Your task to perform on an android device: turn off location history Image 0: 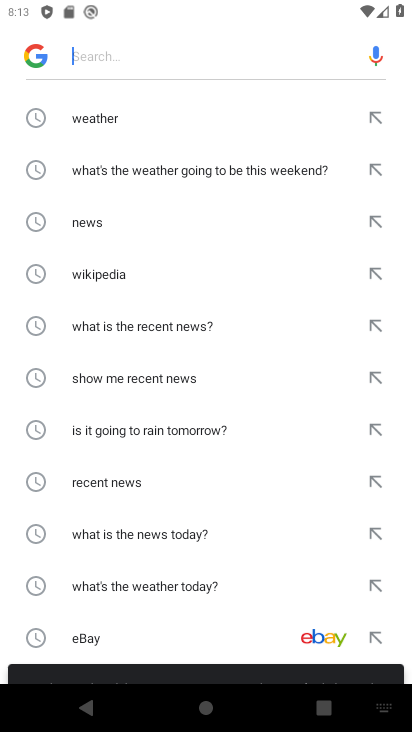
Step 0: press back button
Your task to perform on an android device: turn off location history Image 1: 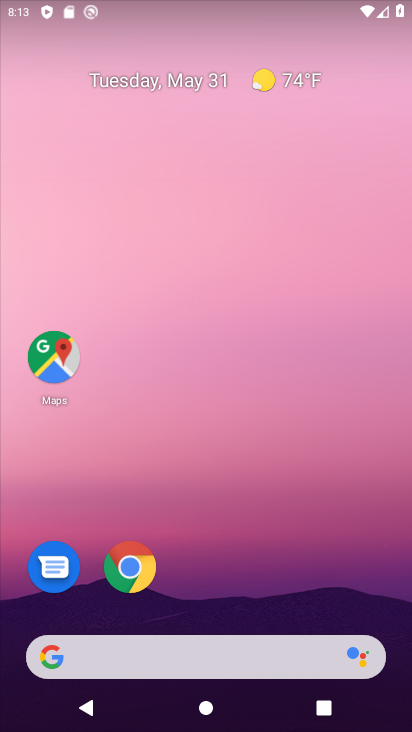
Step 1: drag from (240, 695) to (216, 156)
Your task to perform on an android device: turn off location history Image 2: 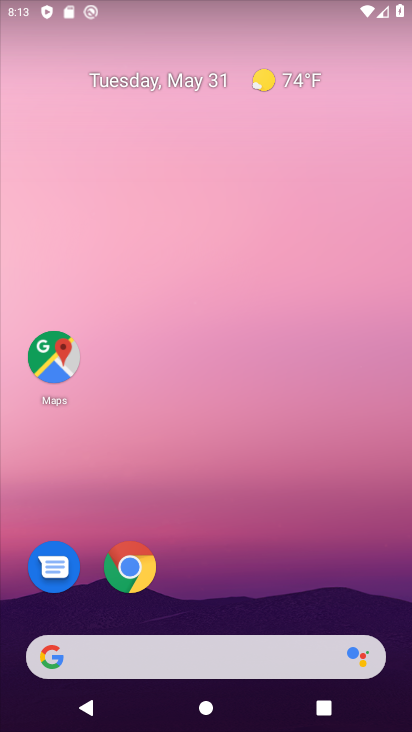
Step 2: drag from (283, 596) to (276, 252)
Your task to perform on an android device: turn off location history Image 3: 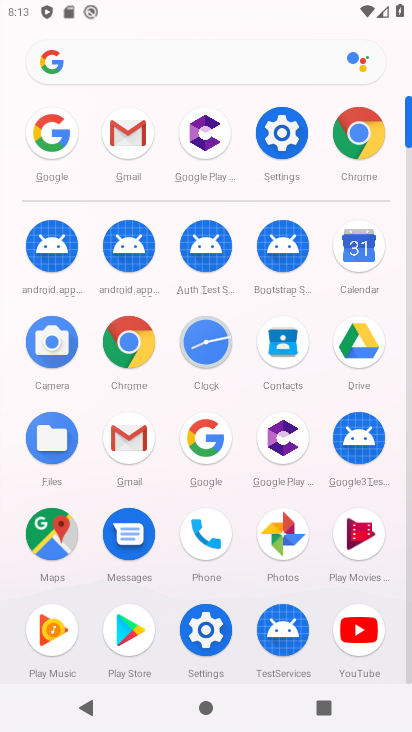
Step 3: click (276, 135)
Your task to perform on an android device: turn off location history Image 4: 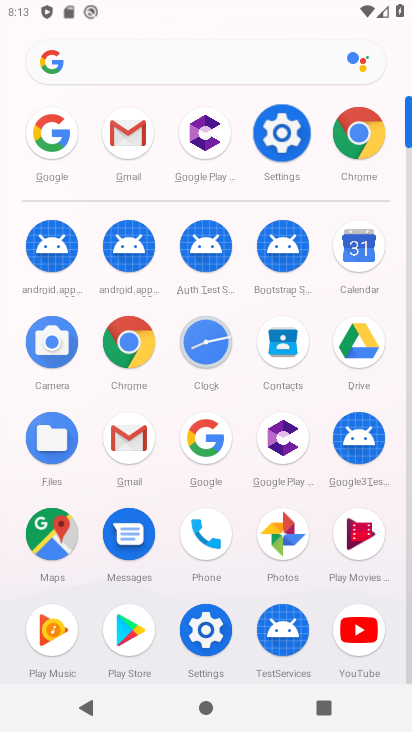
Step 4: click (276, 136)
Your task to perform on an android device: turn off location history Image 5: 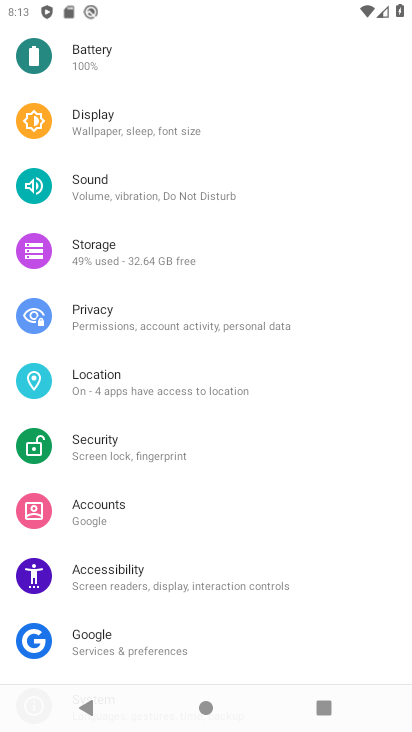
Step 5: click (100, 383)
Your task to perform on an android device: turn off location history Image 6: 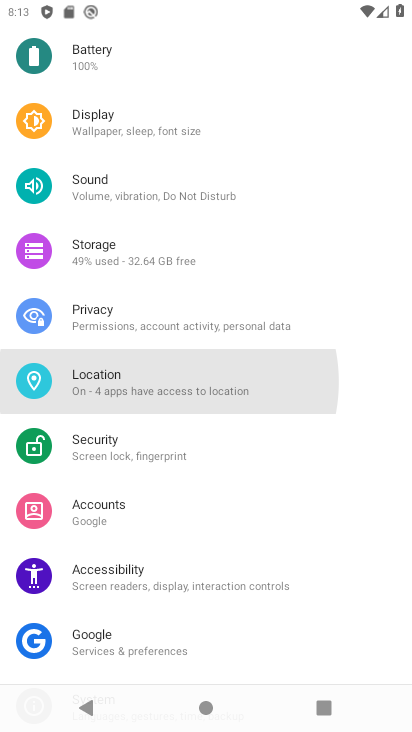
Step 6: click (101, 383)
Your task to perform on an android device: turn off location history Image 7: 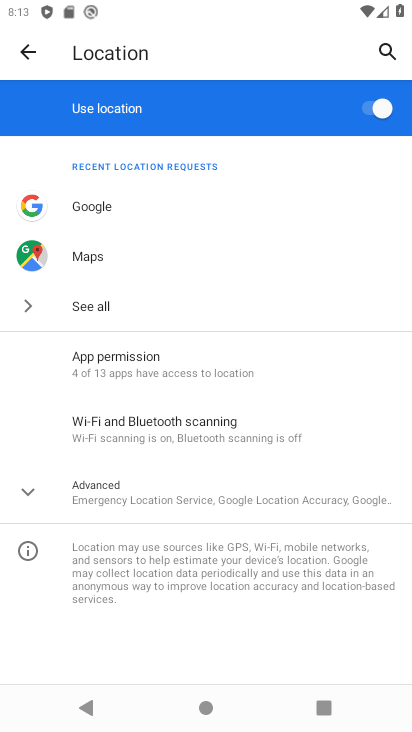
Step 7: click (102, 495)
Your task to perform on an android device: turn off location history Image 8: 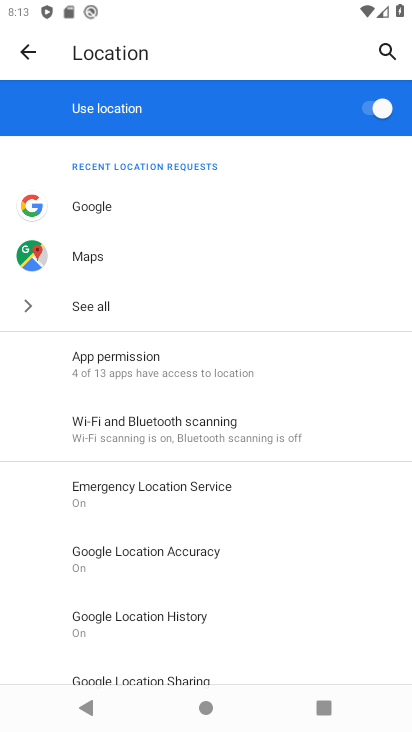
Step 8: click (138, 618)
Your task to perform on an android device: turn off location history Image 9: 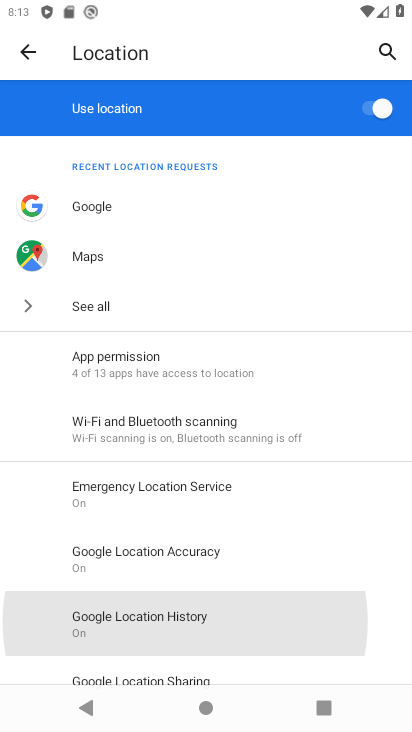
Step 9: click (138, 618)
Your task to perform on an android device: turn off location history Image 10: 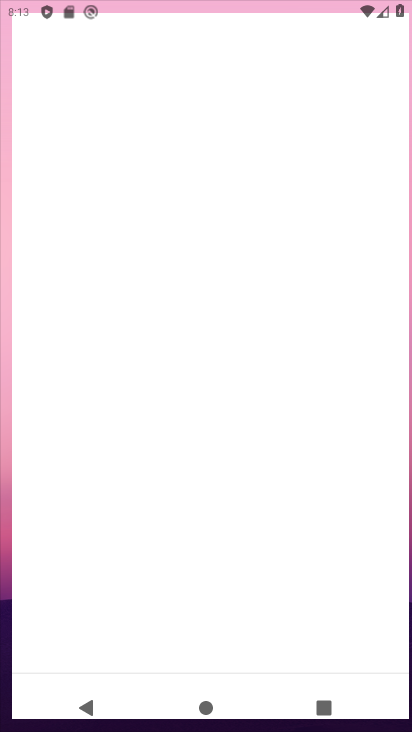
Step 10: click (139, 618)
Your task to perform on an android device: turn off location history Image 11: 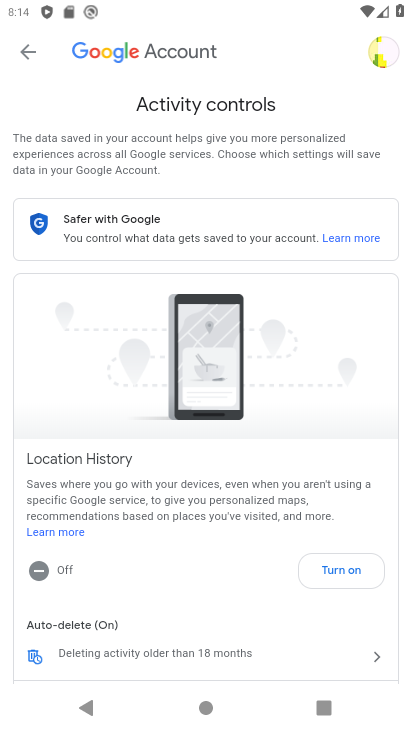
Step 11: click (346, 564)
Your task to perform on an android device: turn off location history Image 12: 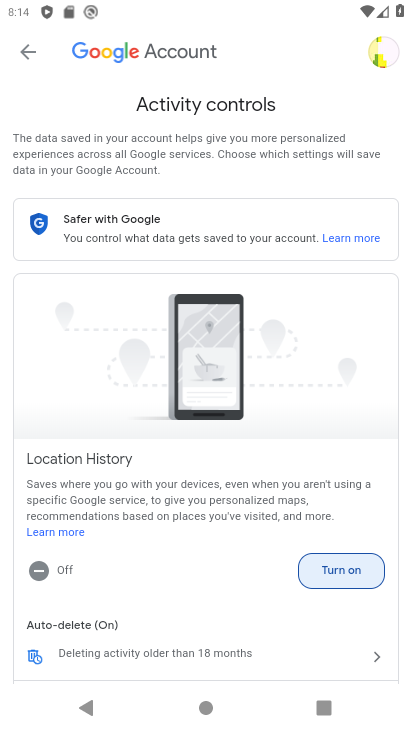
Step 12: click (43, 577)
Your task to perform on an android device: turn off location history Image 13: 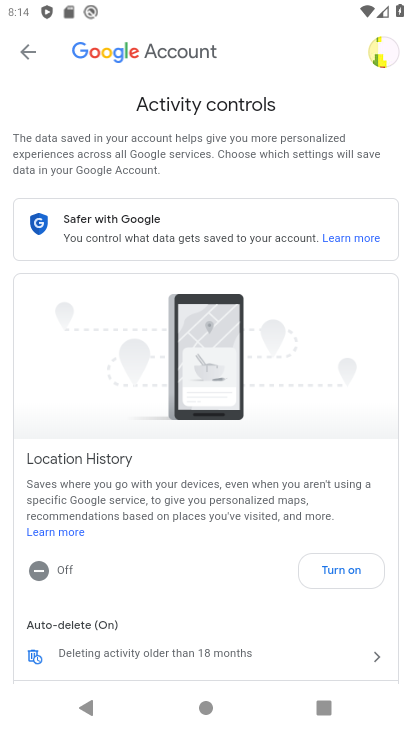
Step 13: click (42, 576)
Your task to perform on an android device: turn off location history Image 14: 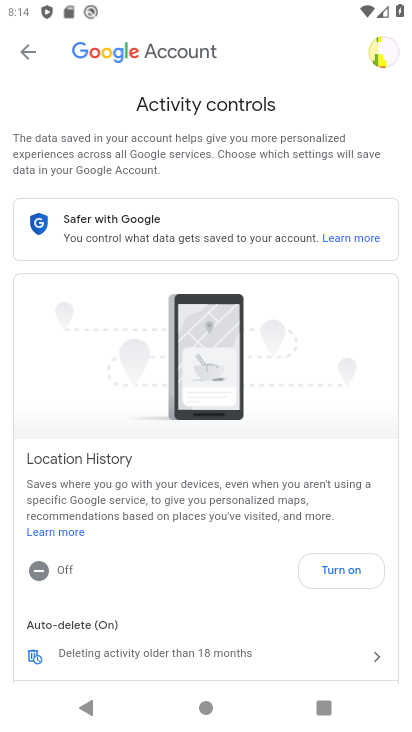
Step 14: click (355, 576)
Your task to perform on an android device: turn off location history Image 15: 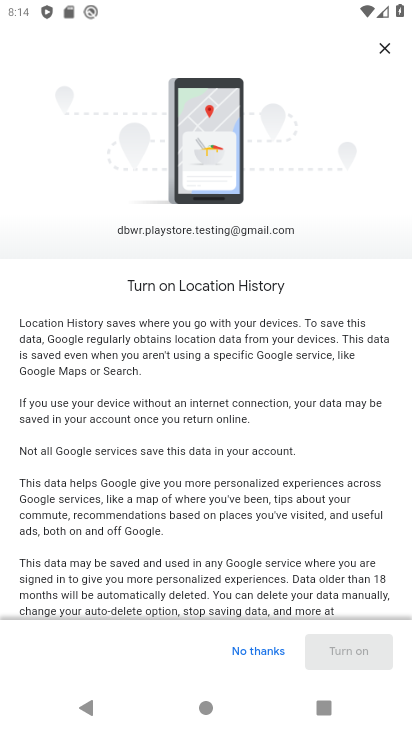
Step 15: click (269, 650)
Your task to perform on an android device: turn off location history Image 16: 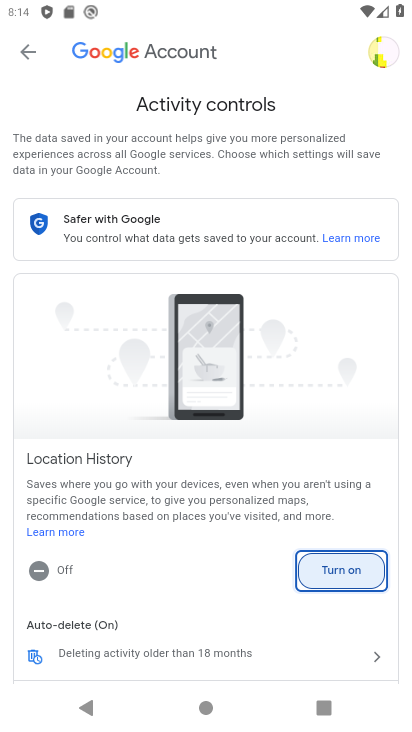
Step 16: click (339, 574)
Your task to perform on an android device: turn off location history Image 17: 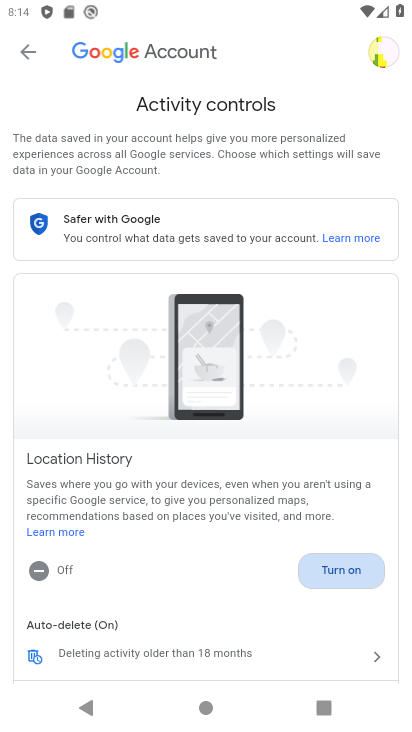
Step 17: click (339, 574)
Your task to perform on an android device: turn off location history Image 18: 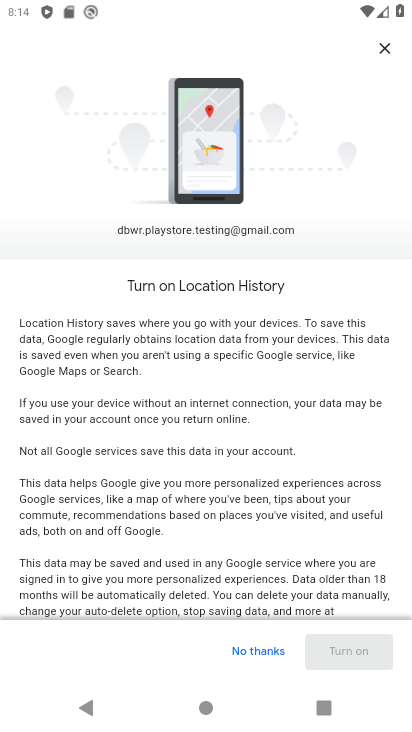
Step 18: click (337, 646)
Your task to perform on an android device: turn off location history Image 19: 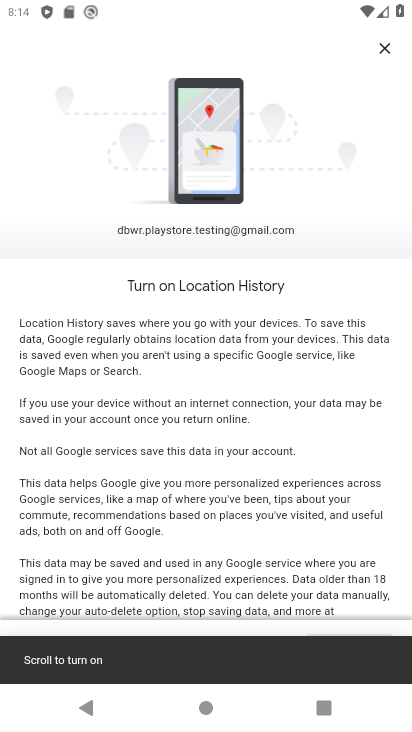
Step 19: drag from (288, 539) to (279, 129)
Your task to perform on an android device: turn off location history Image 20: 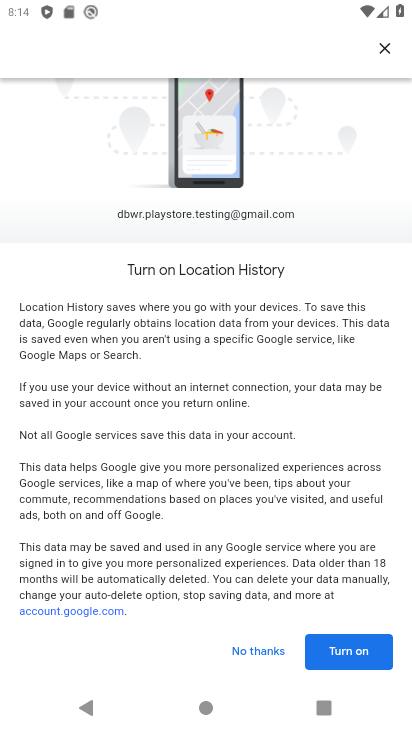
Step 20: click (267, 653)
Your task to perform on an android device: turn off location history Image 21: 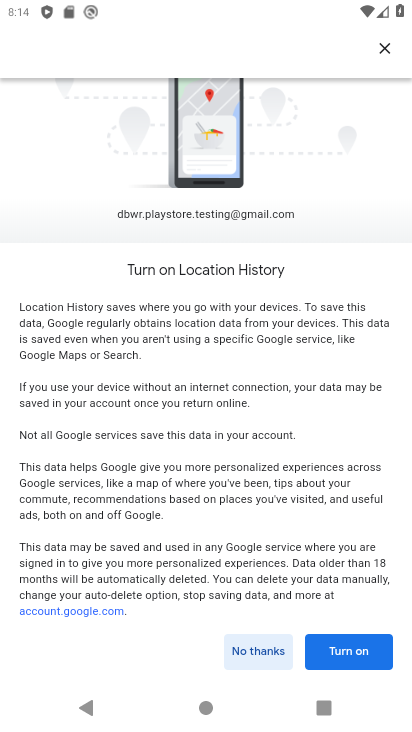
Step 21: click (271, 650)
Your task to perform on an android device: turn off location history Image 22: 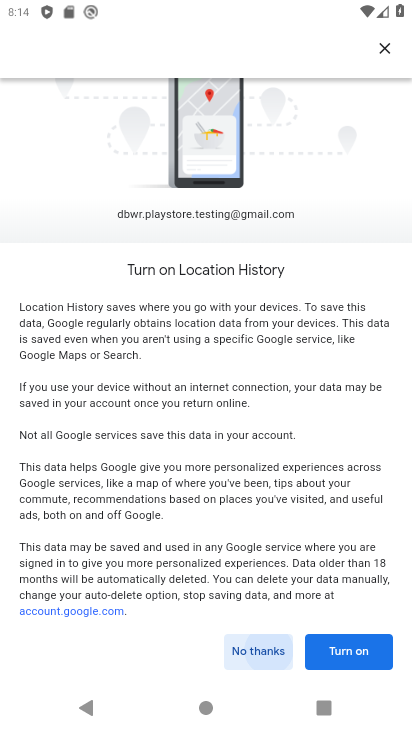
Step 22: click (269, 651)
Your task to perform on an android device: turn off location history Image 23: 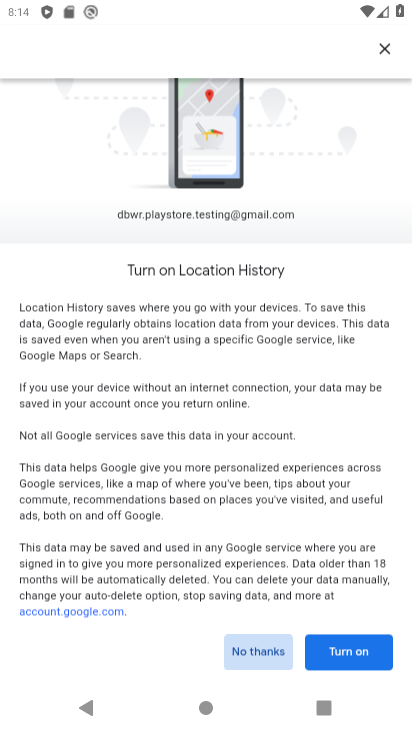
Step 23: click (269, 651)
Your task to perform on an android device: turn off location history Image 24: 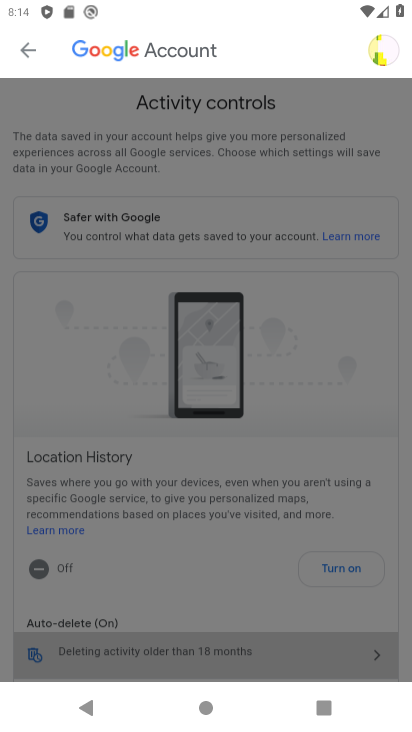
Step 24: click (271, 638)
Your task to perform on an android device: turn off location history Image 25: 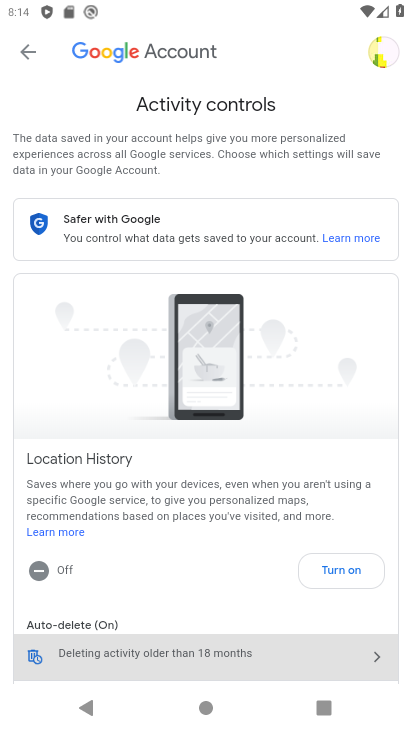
Step 25: task complete